Your task to perform on an android device: toggle improve location accuracy Image 0: 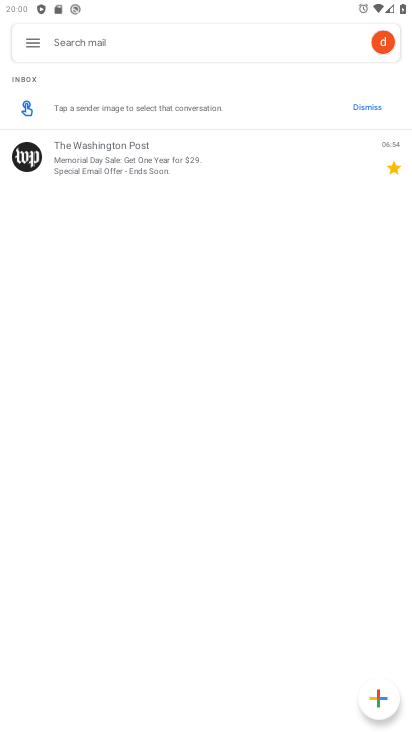
Step 0: drag from (208, 614) to (237, 167)
Your task to perform on an android device: toggle improve location accuracy Image 1: 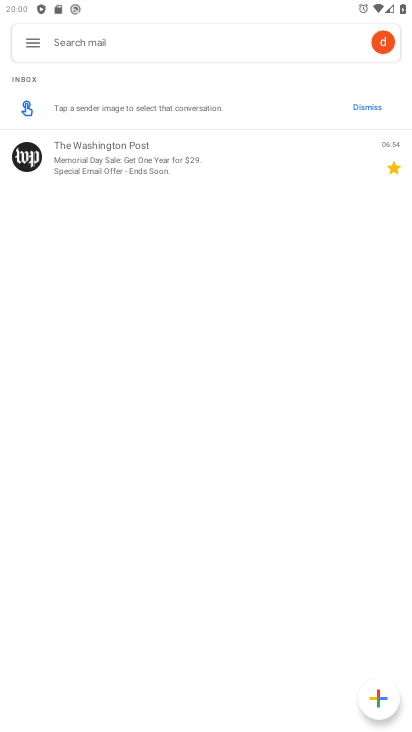
Step 1: press home button
Your task to perform on an android device: toggle improve location accuracy Image 2: 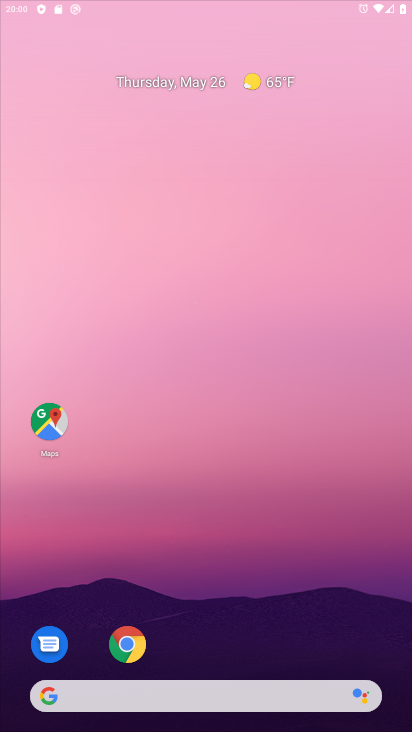
Step 2: drag from (175, 626) to (264, 118)
Your task to perform on an android device: toggle improve location accuracy Image 3: 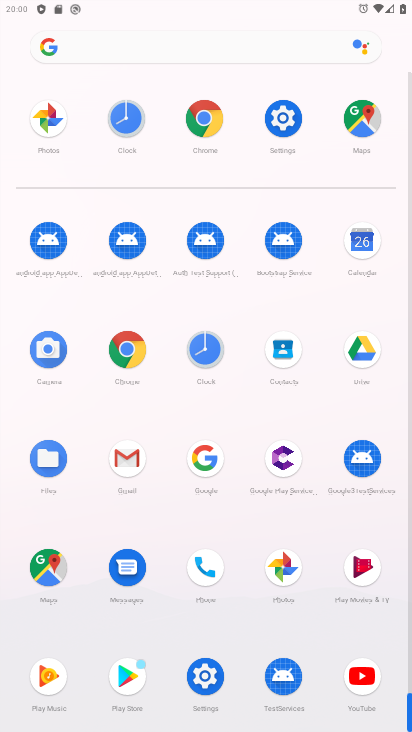
Step 3: click (280, 124)
Your task to perform on an android device: toggle improve location accuracy Image 4: 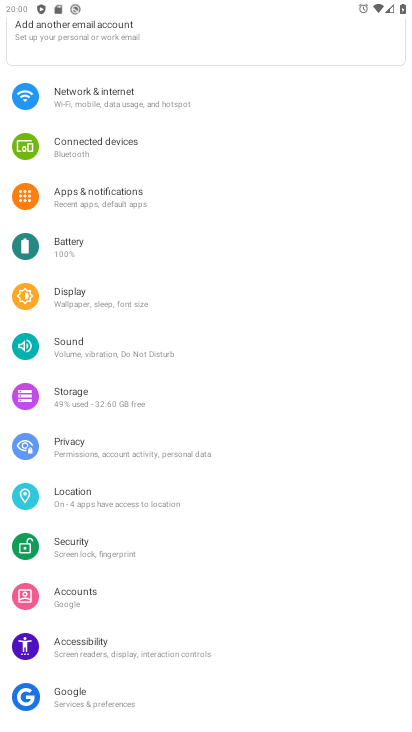
Step 4: click (140, 502)
Your task to perform on an android device: toggle improve location accuracy Image 5: 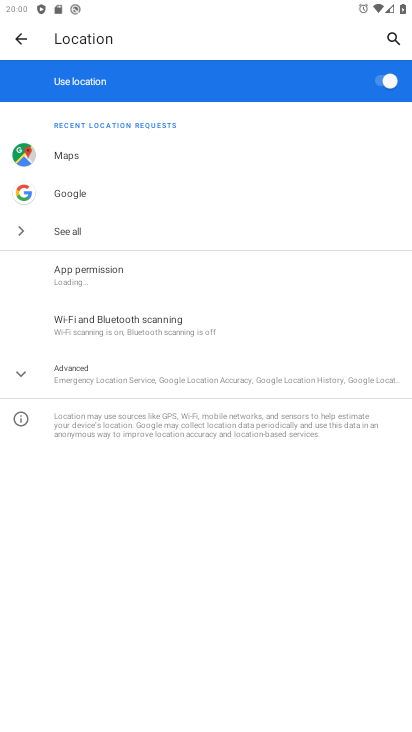
Step 5: click (122, 388)
Your task to perform on an android device: toggle improve location accuracy Image 6: 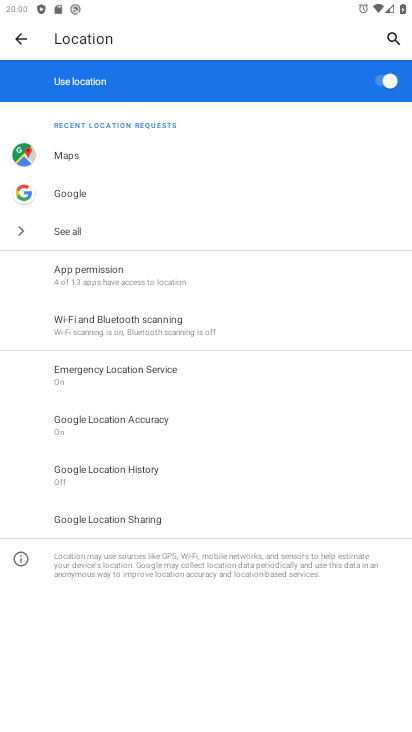
Step 6: click (171, 416)
Your task to perform on an android device: toggle improve location accuracy Image 7: 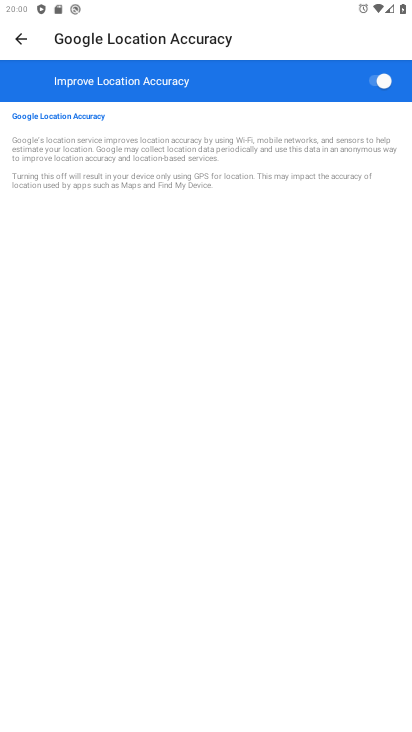
Step 7: click (381, 85)
Your task to perform on an android device: toggle improve location accuracy Image 8: 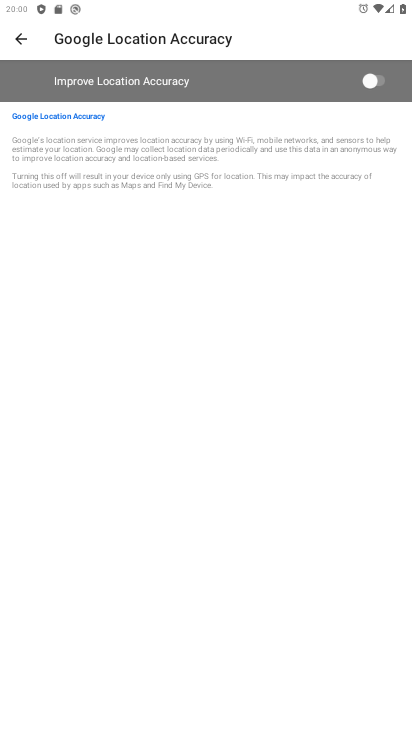
Step 8: task complete